Your task to perform on an android device: turn on location history Image 0: 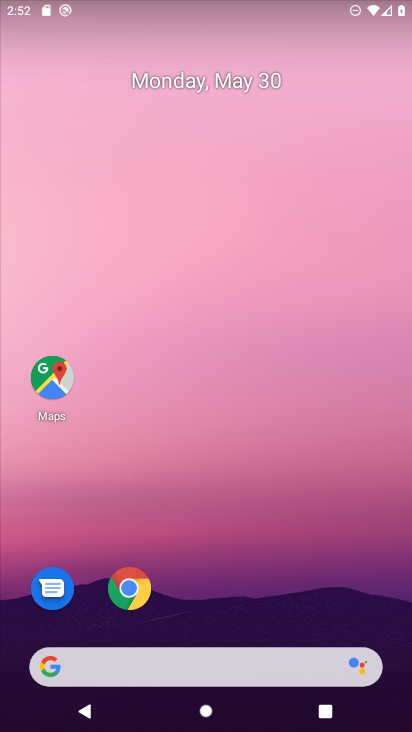
Step 0: drag from (158, 609) to (217, 266)
Your task to perform on an android device: turn on location history Image 1: 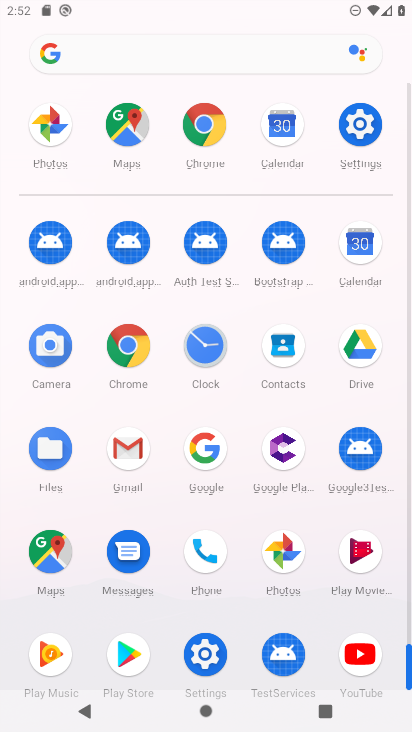
Step 1: click (353, 107)
Your task to perform on an android device: turn on location history Image 2: 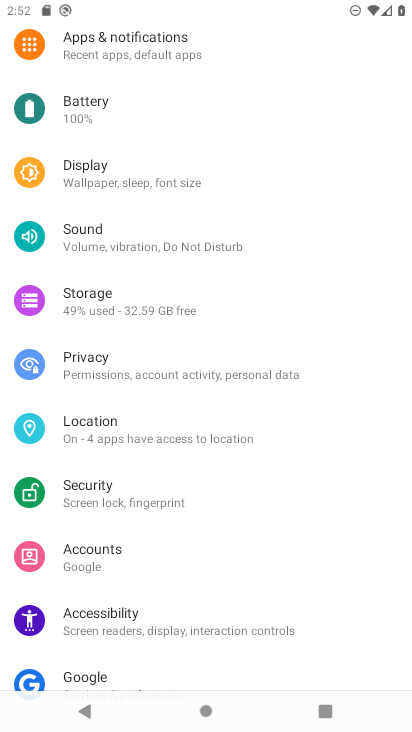
Step 2: drag from (118, 590) to (186, 175)
Your task to perform on an android device: turn on location history Image 3: 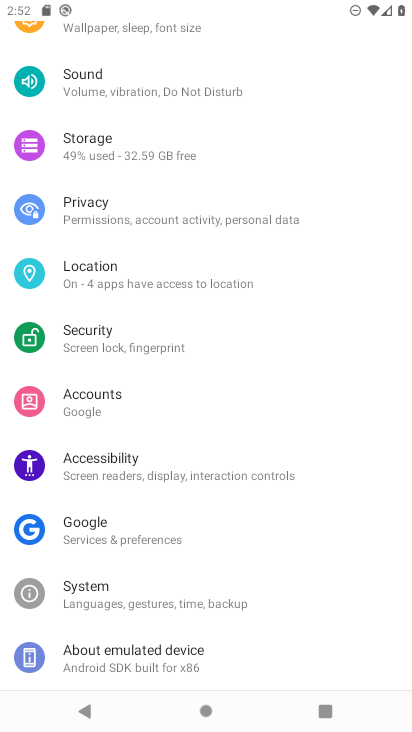
Step 3: click (120, 275)
Your task to perform on an android device: turn on location history Image 4: 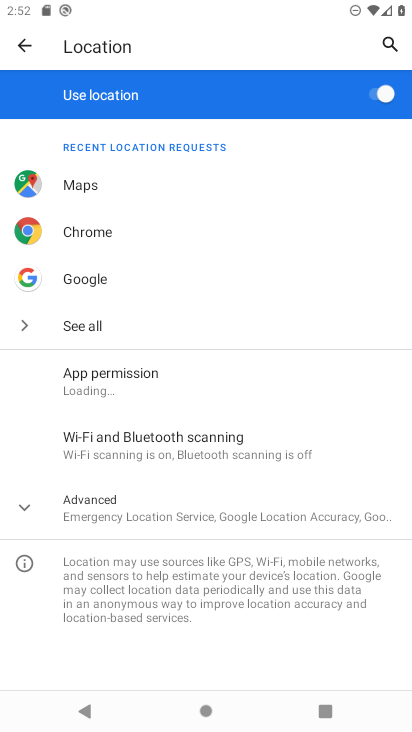
Step 4: click (154, 514)
Your task to perform on an android device: turn on location history Image 5: 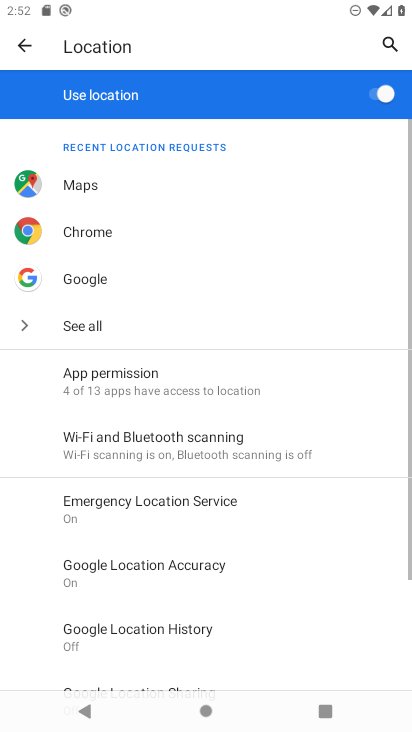
Step 5: click (150, 639)
Your task to perform on an android device: turn on location history Image 6: 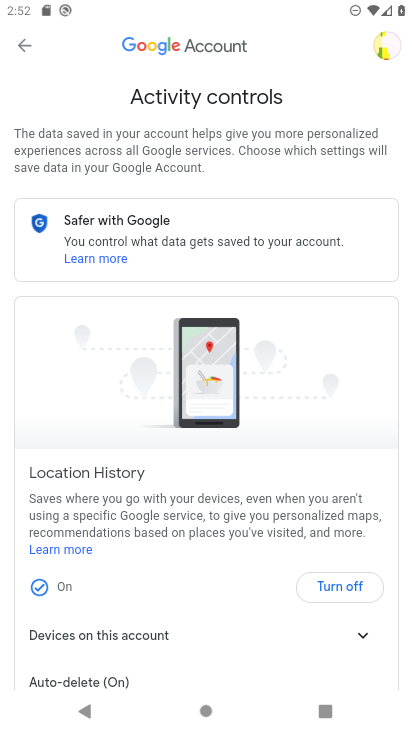
Step 6: click (67, 580)
Your task to perform on an android device: turn on location history Image 7: 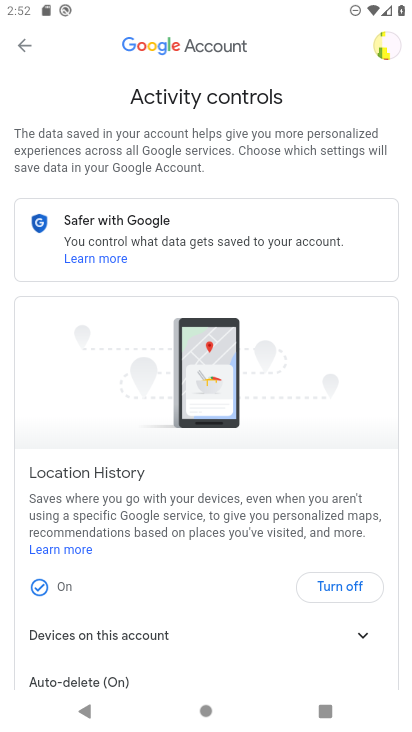
Step 7: click (39, 587)
Your task to perform on an android device: turn on location history Image 8: 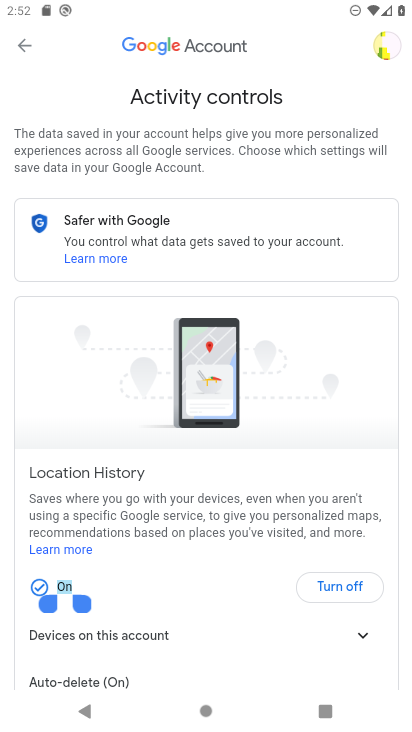
Step 8: click (326, 589)
Your task to perform on an android device: turn on location history Image 9: 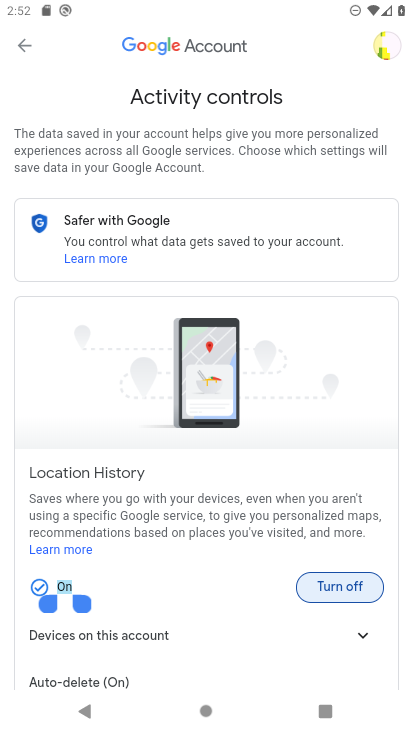
Step 9: click (327, 588)
Your task to perform on an android device: turn on location history Image 10: 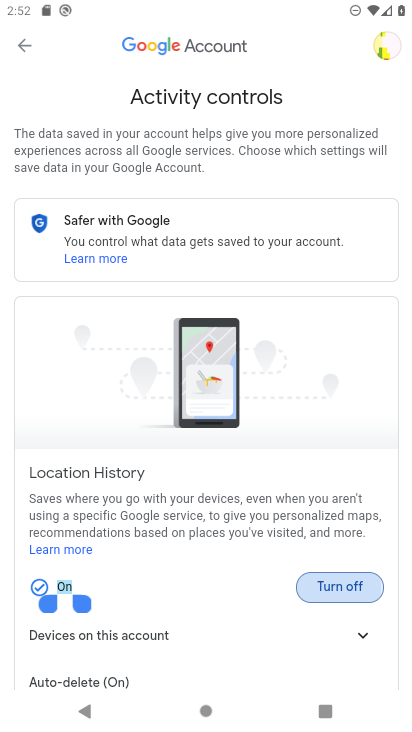
Step 10: click (327, 588)
Your task to perform on an android device: turn on location history Image 11: 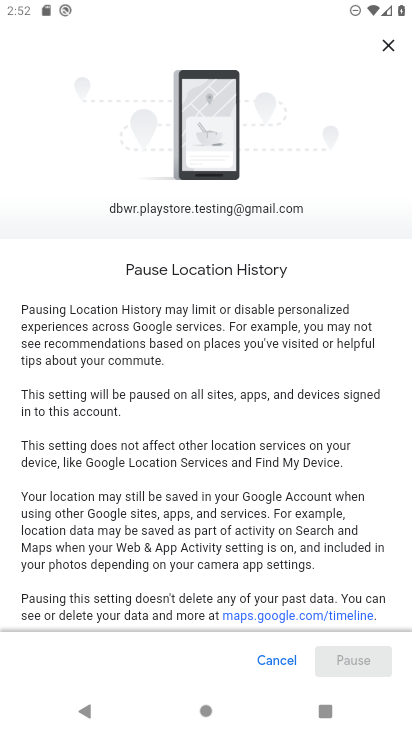
Step 11: task complete